Your task to perform on an android device: check data usage Image 0: 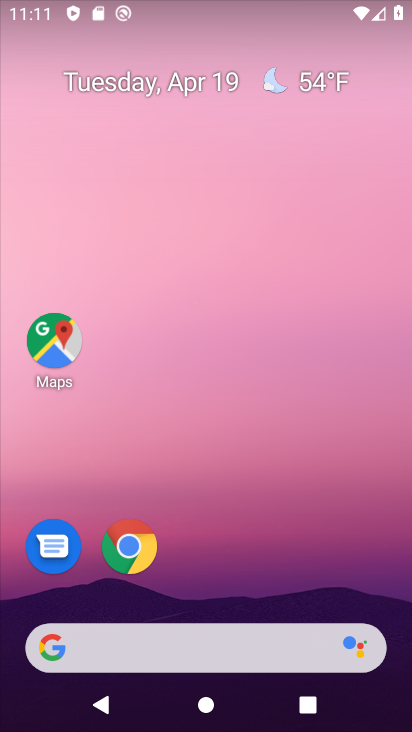
Step 0: click (33, 331)
Your task to perform on an android device: check data usage Image 1: 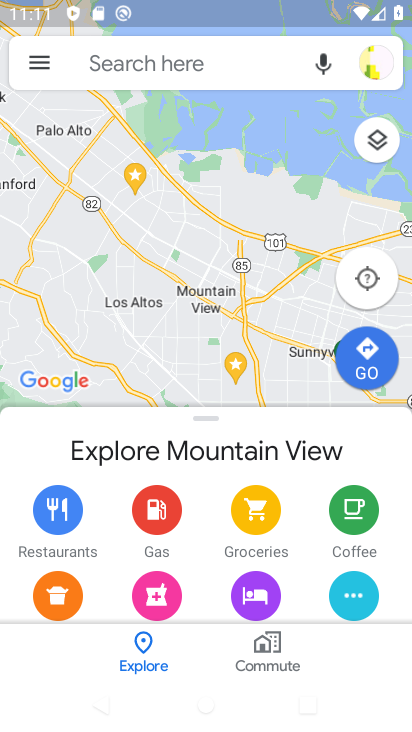
Step 1: press home button
Your task to perform on an android device: check data usage Image 2: 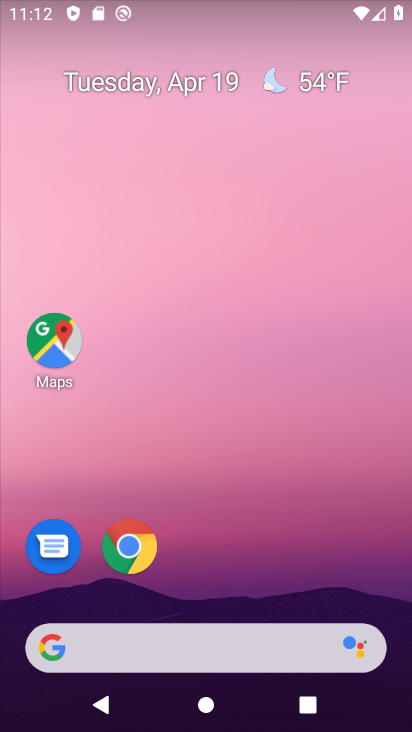
Step 2: drag from (253, 703) to (147, 51)
Your task to perform on an android device: check data usage Image 3: 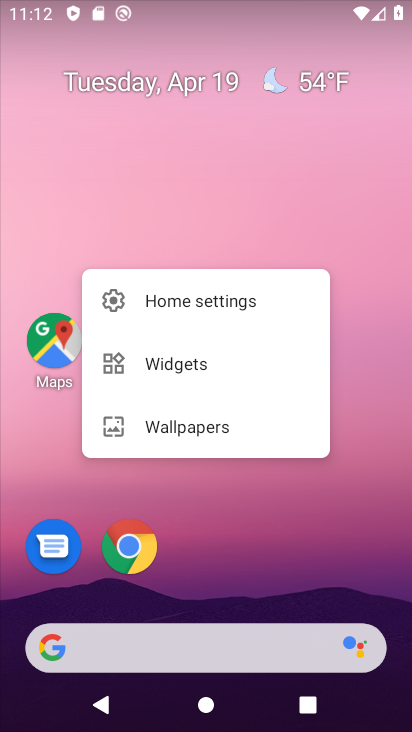
Step 3: click (244, 693)
Your task to perform on an android device: check data usage Image 4: 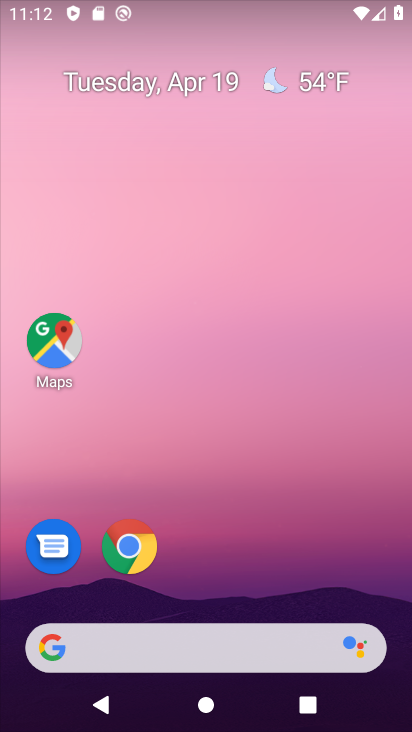
Step 4: drag from (273, 712) to (203, 49)
Your task to perform on an android device: check data usage Image 5: 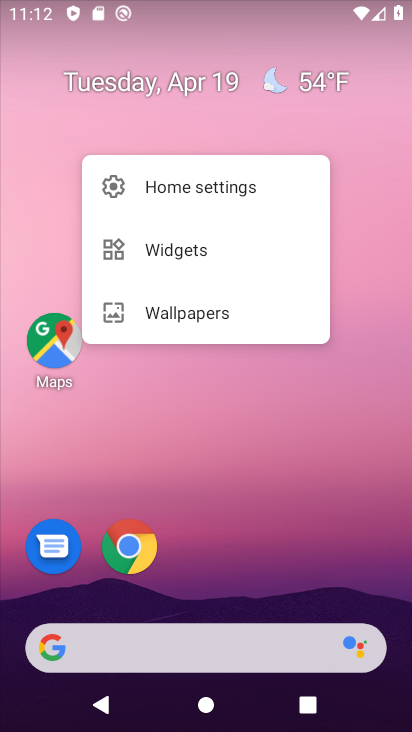
Step 5: click (204, 708)
Your task to perform on an android device: check data usage Image 6: 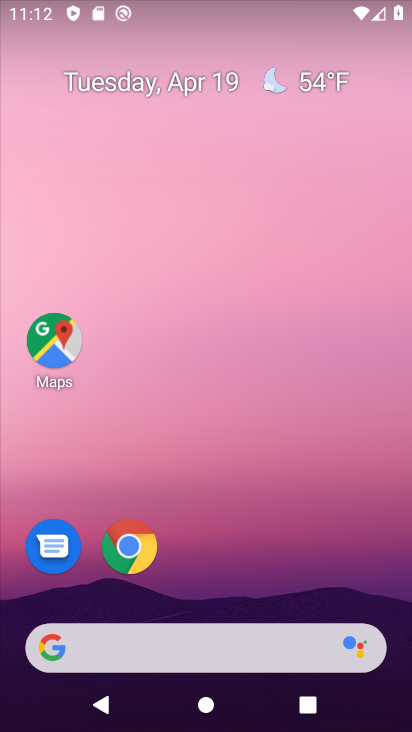
Step 6: drag from (243, 711) to (191, 37)
Your task to perform on an android device: check data usage Image 7: 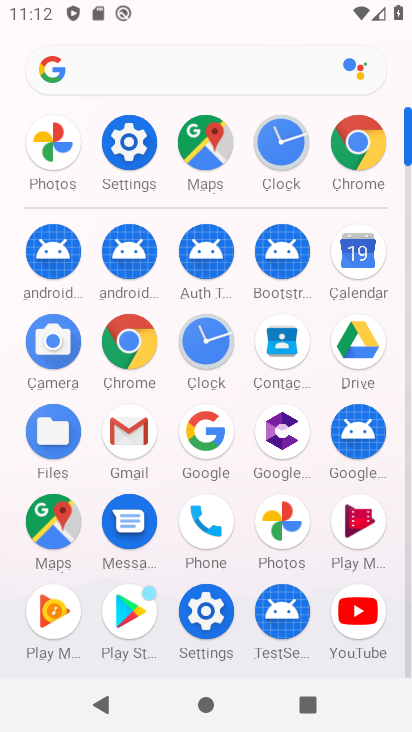
Step 7: click (135, 208)
Your task to perform on an android device: check data usage Image 8: 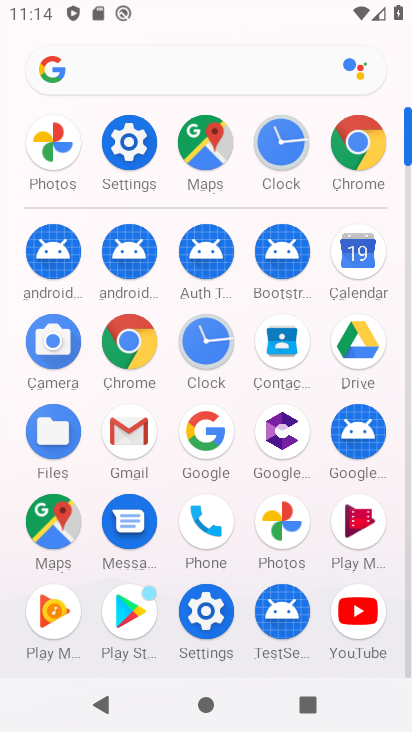
Step 8: click (146, 150)
Your task to perform on an android device: check data usage Image 9: 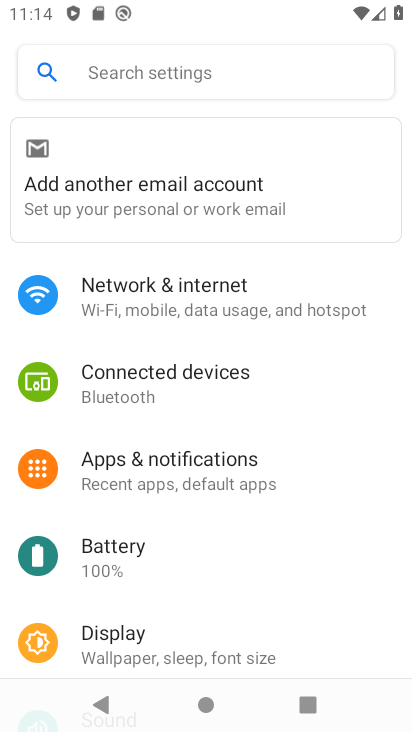
Step 9: click (305, 304)
Your task to perform on an android device: check data usage Image 10: 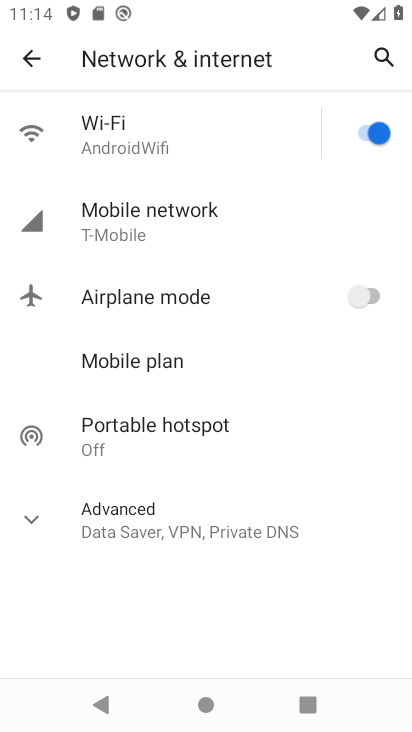
Step 10: click (251, 213)
Your task to perform on an android device: check data usage Image 11: 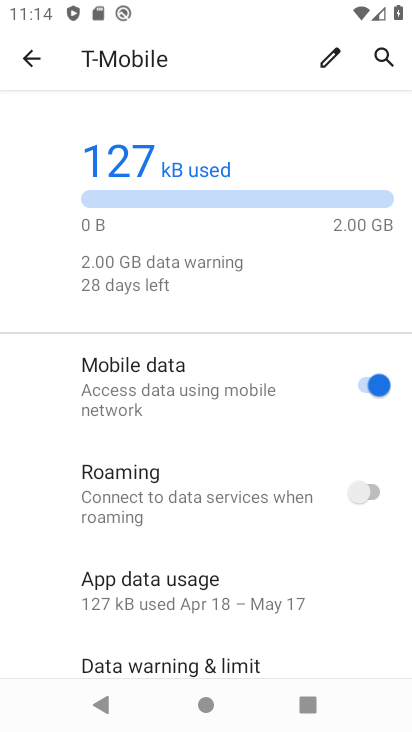
Step 11: task complete